Your task to perform on an android device: open chrome and create a bookmark for the current page Image 0: 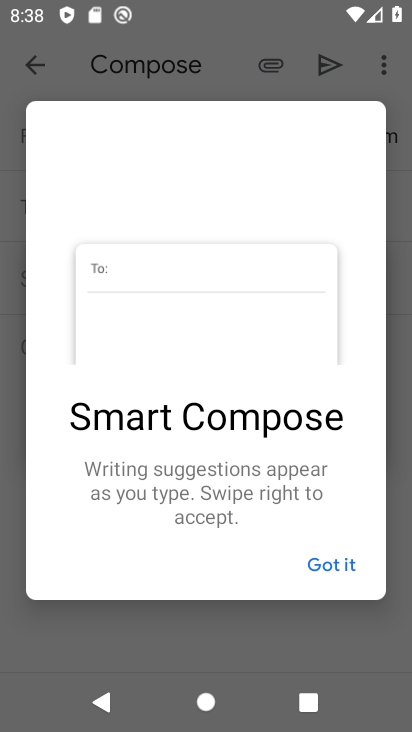
Step 0: press home button
Your task to perform on an android device: open chrome and create a bookmark for the current page Image 1: 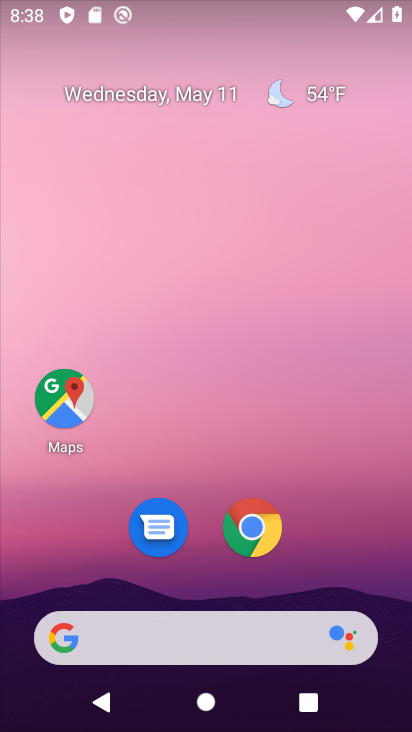
Step 1: click (244, 533)
Your task to perform on an android device: open chrome and create a bookmark for the current page Image 2: 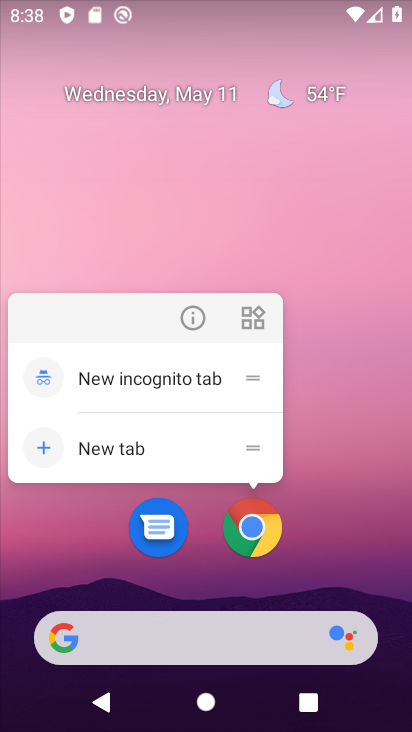
Step 2: click (256, 534)
Your task to perform on an android device: open chrome and create a bookmark for the current page Image 3: 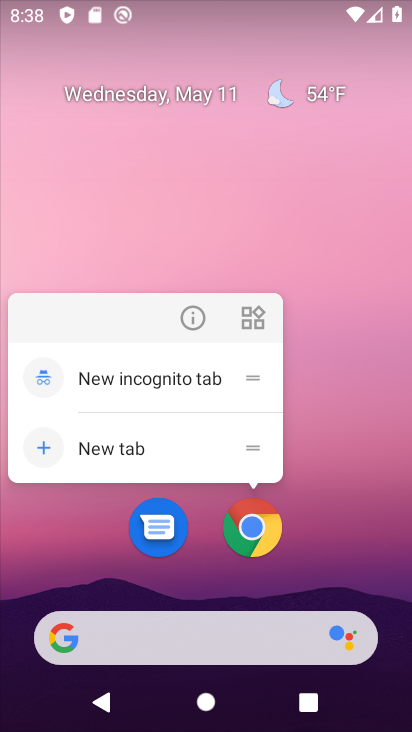
Step 3: click (266, 543)
Your task to perform on an android device: open chrome and create a bookmark for the current page Image 4: 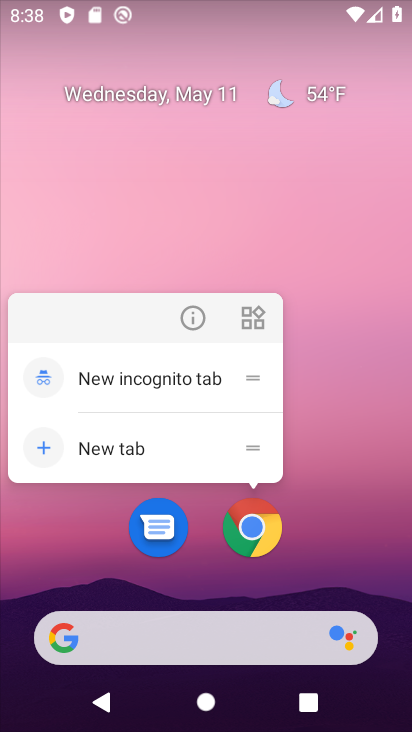
Step 4: click (259, 561)
Your task to perform on an android device: open chrome and create a bookmark for the current page Image 5: 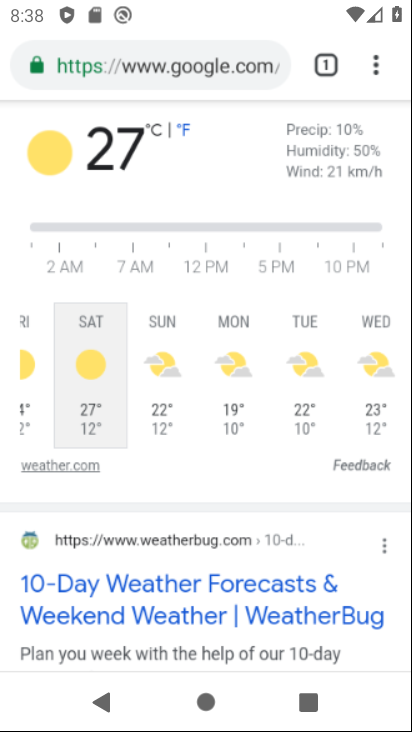
Step 5: click (256, 547)
Your task to perform on an android device: open chrome and create a bookmark for the current page Image 6: 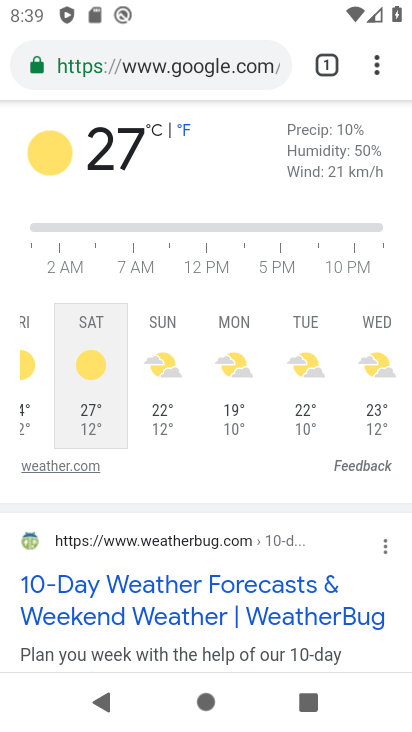
Step 6: task complete